Your task to perform on an android device: turn off notifications in google photos Image 0: 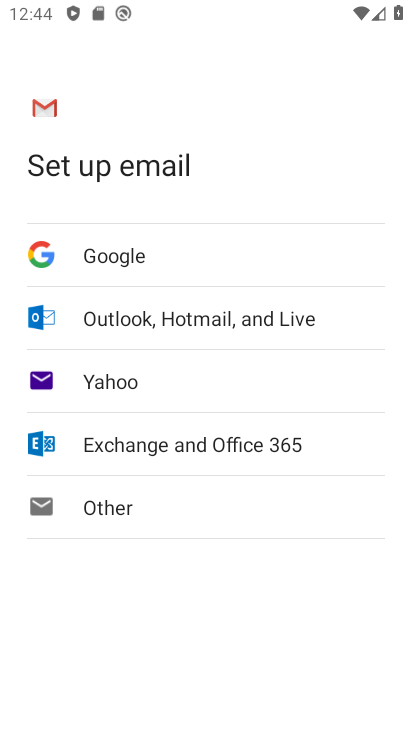
Step 0: drag from (186, 615) to (204, 381)
Your task to perform on an android device: turn off notifications in google photos Image 1: 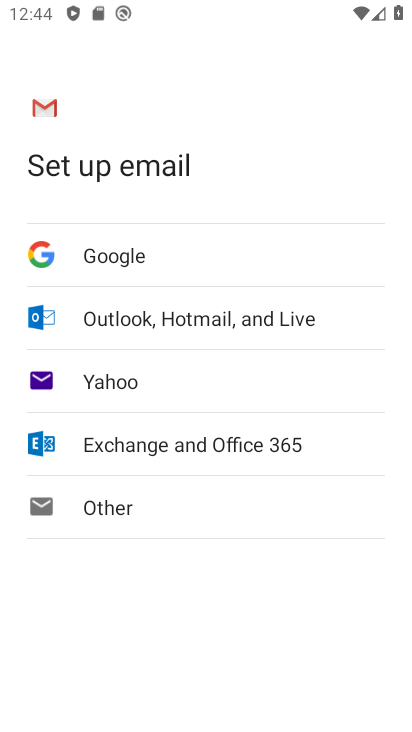
Step 1: press back button
Your task to perform on an android device: turn off notifications in google photos Image 2: 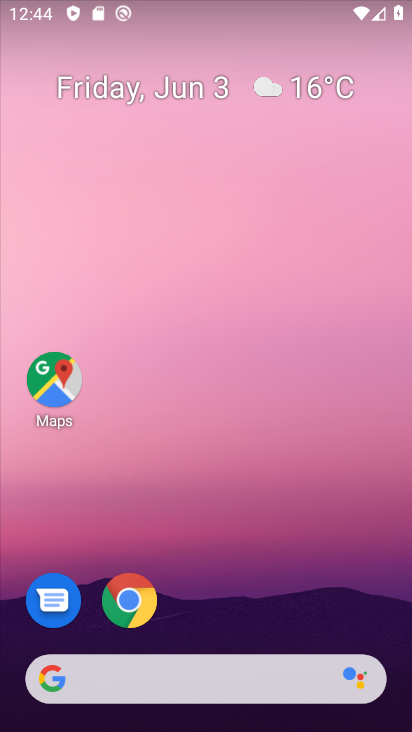
Step 2: drag from (215, 594) to (209, 145)
Your task to perform on an android device: turn off notifications in google photos Image 3: 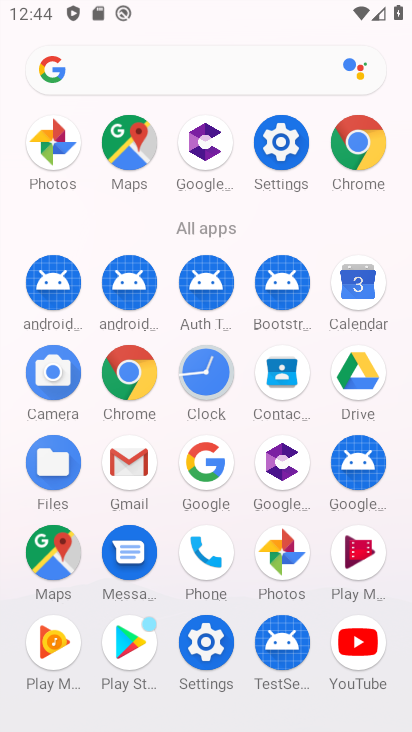
Step 3: click (273, 567)
Your task to perform on an android device: turn off notifications in google photos Image 4: 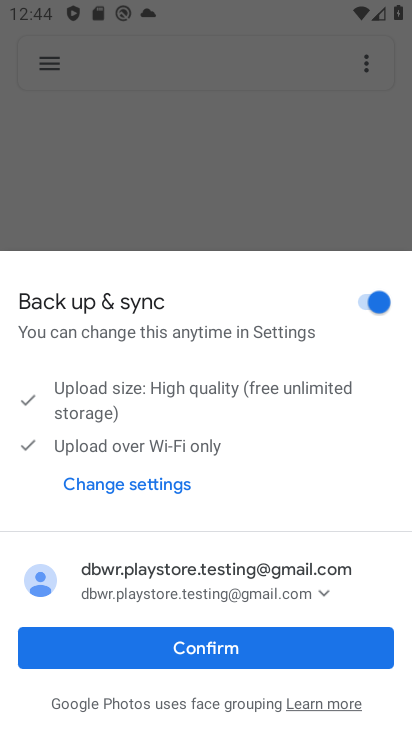
Step 4: click (191, 654)
Your task to perform on an android device: turn off notifications in google photos Image 5: 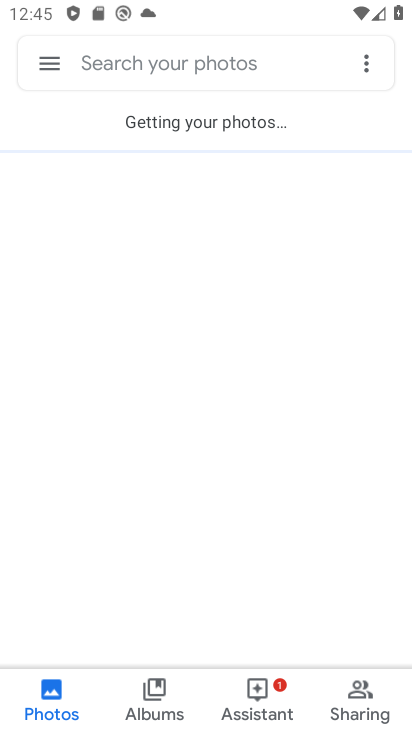
Step 5: click (48, 59)
Your task to perform on an android device: turn off notifications in google photos Image 6: 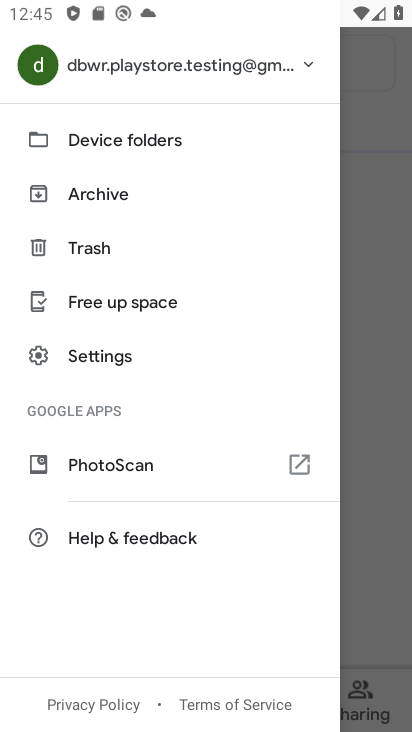
Step 6: click (105, 337)
Your task to perform on an android device: turn off notifications in google photos Image 7: 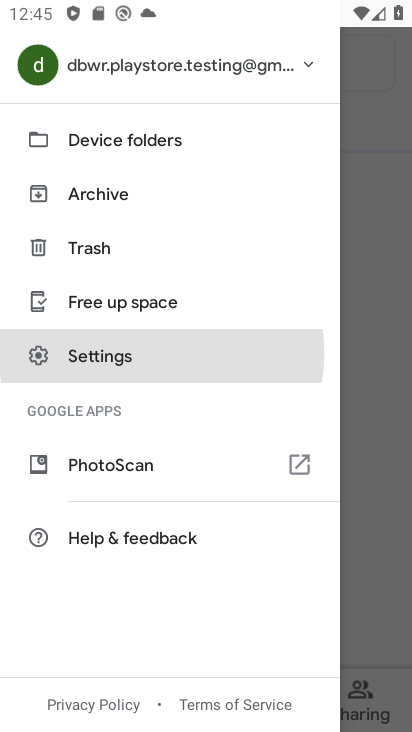
Step 7: click (103, 348)
Your task to perform on an android device: turn off notifications in google photos Image 8: 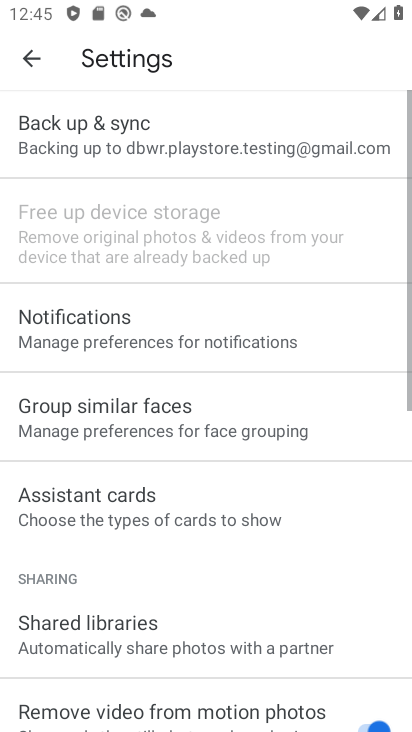
Step 8: click (112, 343)
Your task to perform on an android device: turn off notifications in google photos Image 9: 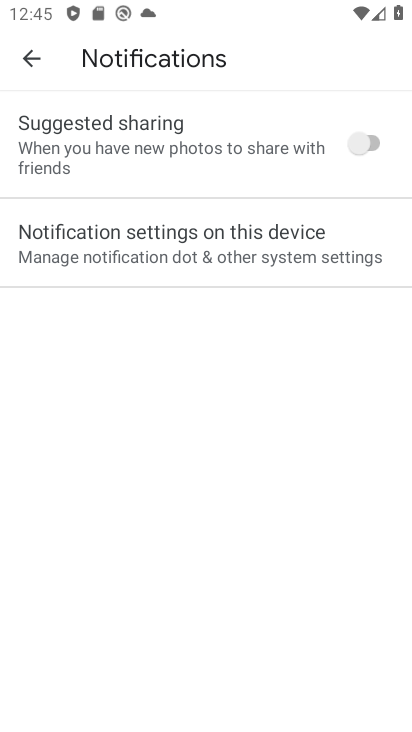
Step 9: click (238, 240)
Your task to perform on an android device: turn off notifications in google photos Image 10: 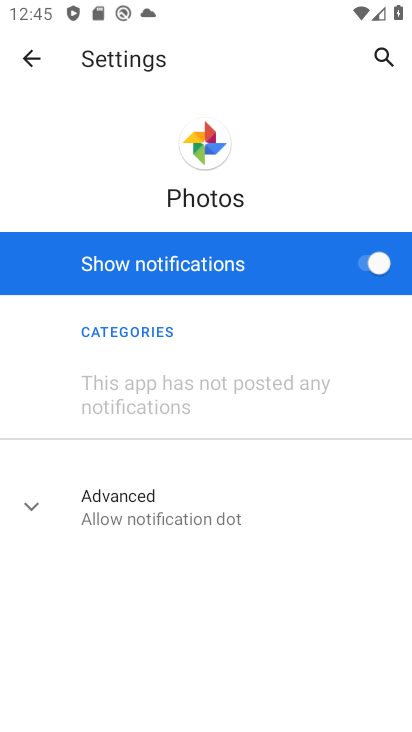
Step 10: click (358, 258)
Your task to perform on an android device: turn off notifications in google photos Image 11: 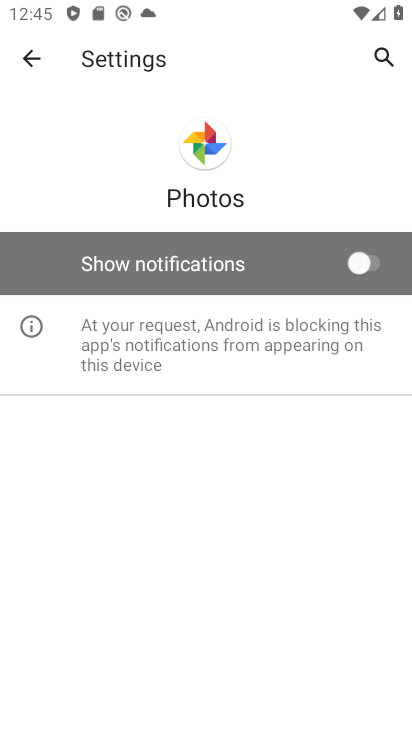
Step 11: task complete